Your task to perform on an android device: Open Google Chrome Image 0: 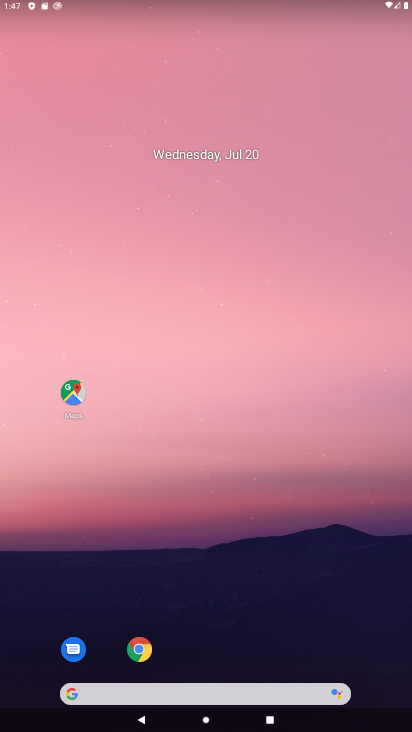
Step 0: drag from (276, 1) to (353, 190)
Your task to perform on an android device: Open Google Chrome Image 1: 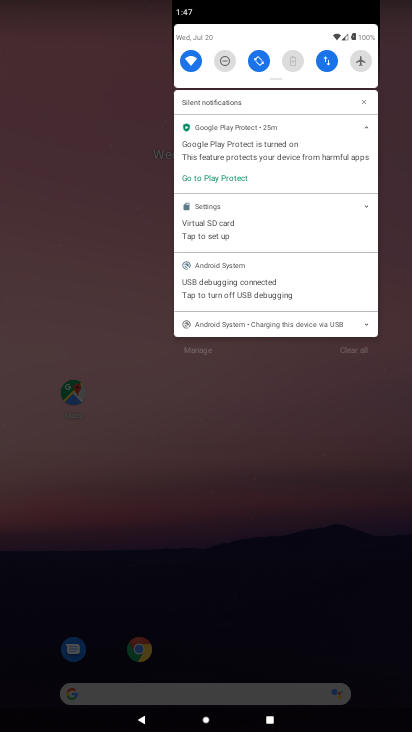
Step 1: drag from (270, 458) to (243, 117)
Your task to perform on an android device: Open Google Chrome Image 2: 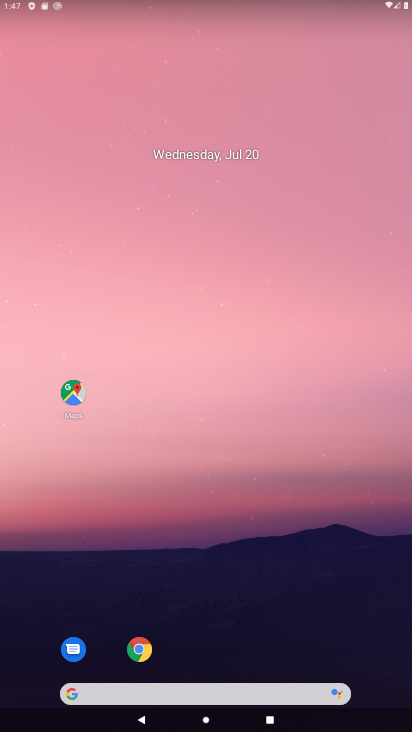
Step 2: click (244, 481)
Your task to perform on an android device: Open Google Chrome Image 3: 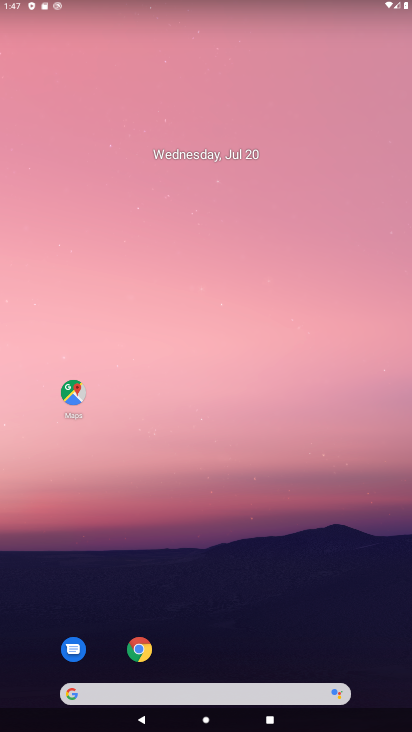
Step 3: click (135, 655)
Your task to perform on an android device: Open Google Chrome Image 4: 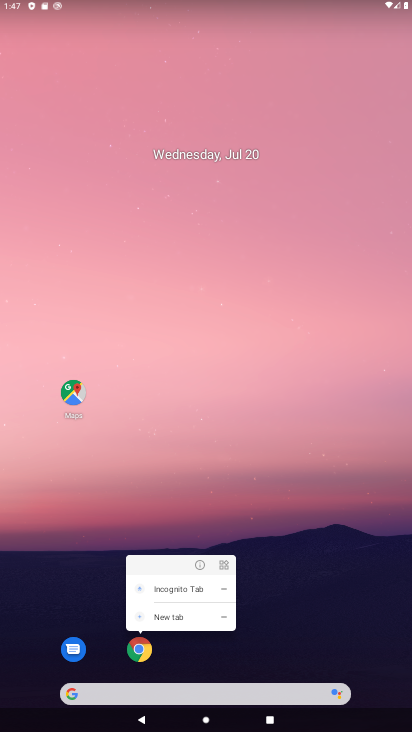
Step 4: click (138, 652)
Your task to perform on an android device: Open Google Chrome Image 5: 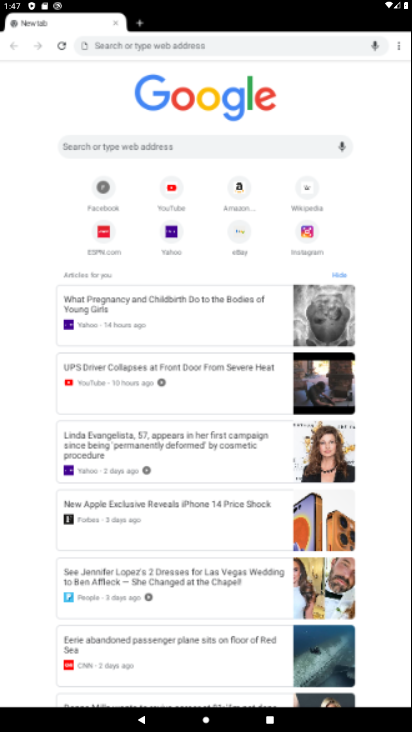
Step 5: click (138, 652)
Your task to perform on an android device: Open Google Chrome Image 6: 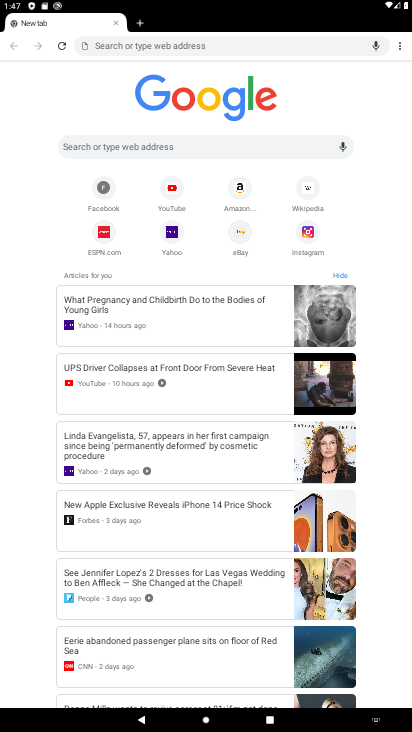
Step 6: task complete